Your task to perform on an android device: toggle improve location accuracy Image 0: 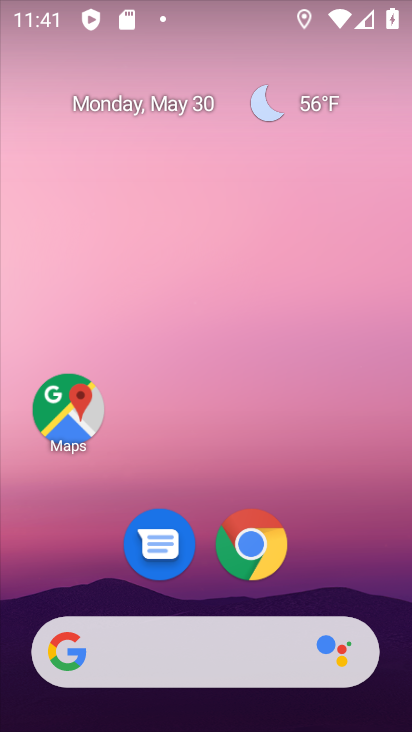
Step 0: drag from (336, 571) to (215, 105)
Your task to perform on an android device: toggle improve location accuracy Image 1: 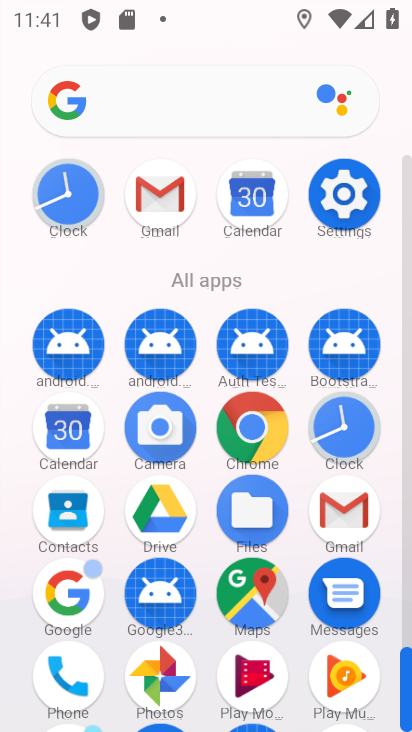
Step 1: click (355, 189)
Your task to perform on an android device: toggle improve location accuracy Image 2: 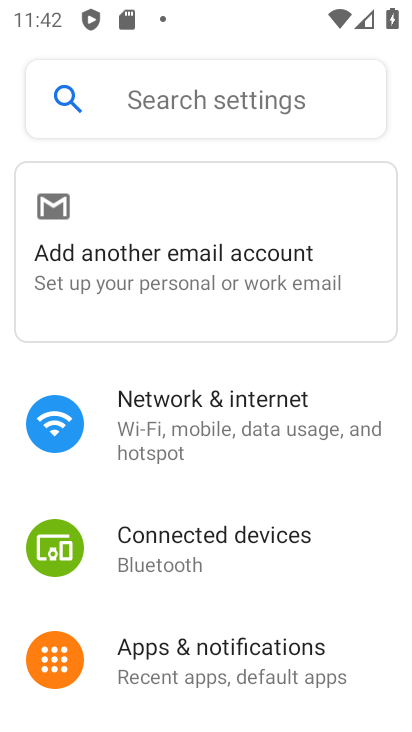
Step 2: drag from (262, 582) to (212, 239)
Your task to perform on an android device: toggle improve location accuracy Image 3: 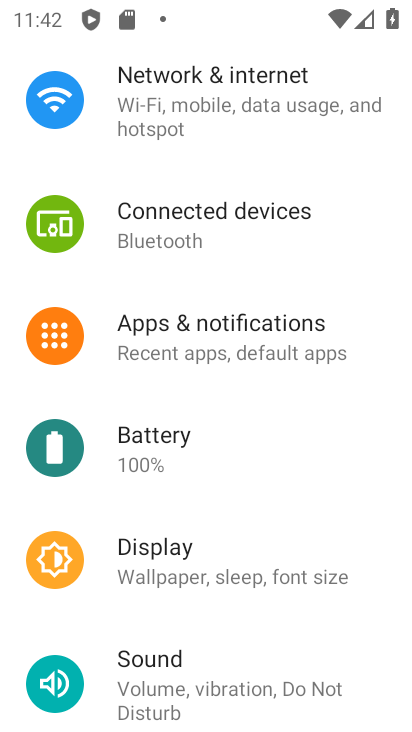
Step 3: drag from (195, 515) to (183, 247)
Your task to perform on an android device: toggle improve location accuracy Image 4: 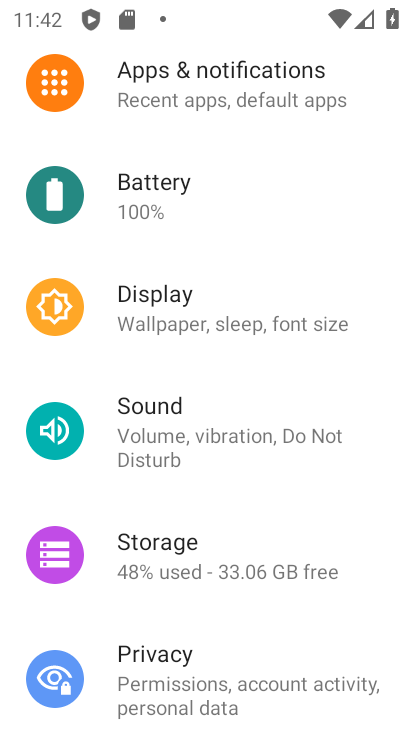
Step 4: drag from (179, 486) to (151, 207)
Your task to perform on an android device: toggle improve location accuracy Image 5: 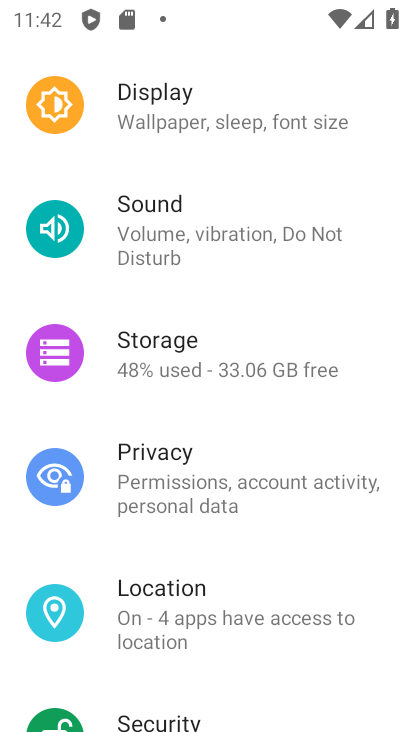
Step 5: click (163, 600)
Your task to perform on an android device: toggle improve location accuracy Image 6: 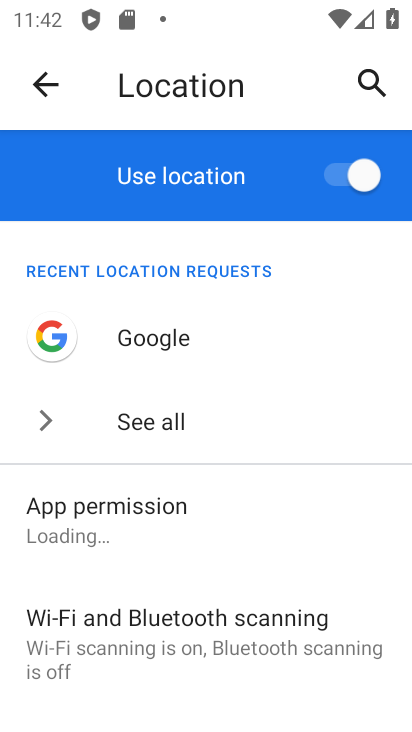
Step 6: drag from (185, 516) to (133, 211)
Your task to perform on an android device: toggle improve location accuracy Image 7: 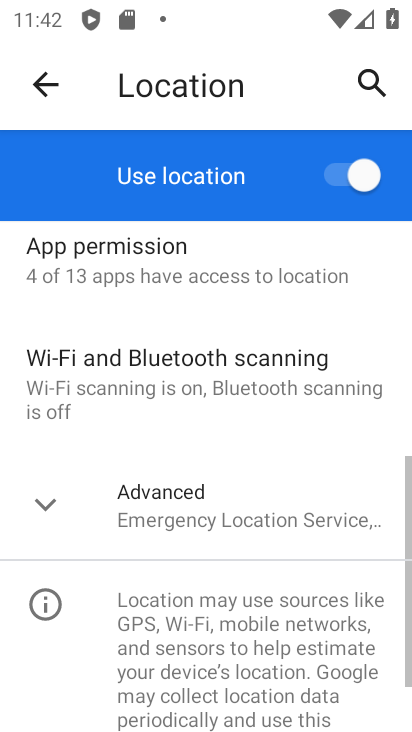
Step 7: click (65, 503)
Your task to perform on an android device: toggle improve location accuracy Image 8: 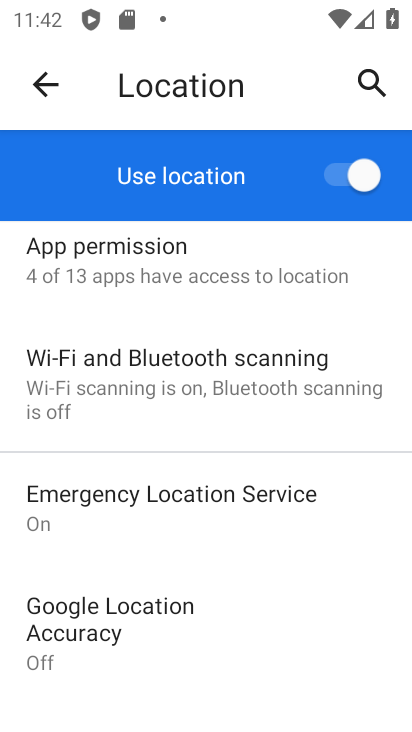
Step 8: click (108, 608)
Your task to perform on an android device: toggle improve location accuracy Image 9: 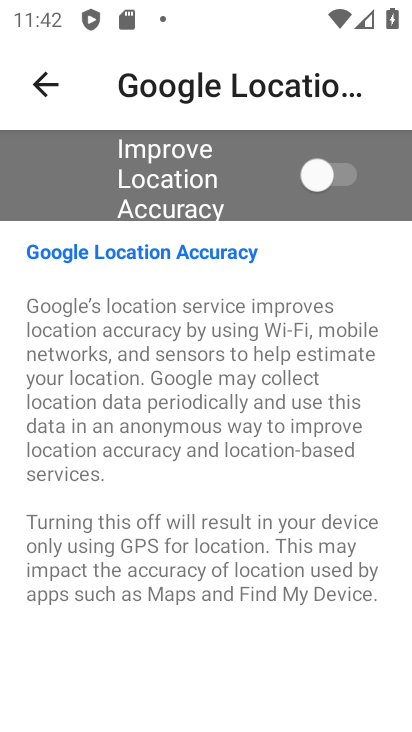
Step 9: click (321, 169)
Your task to perform on an android device: toggle improve location accuracy Image 10: 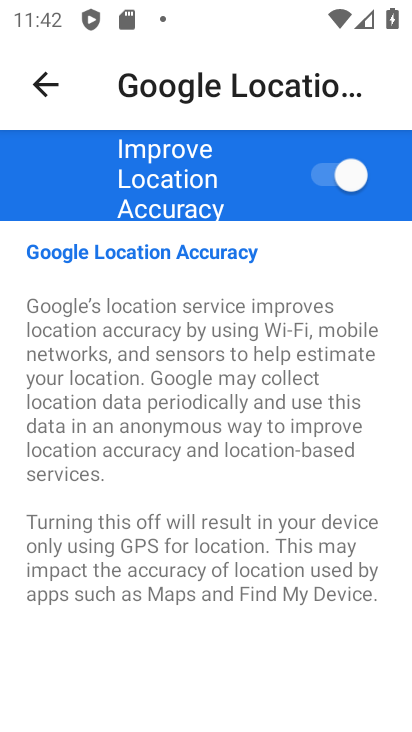
Step 10: task complete